Your task to perform on an android device: turn on improve location accuracy Image 0: 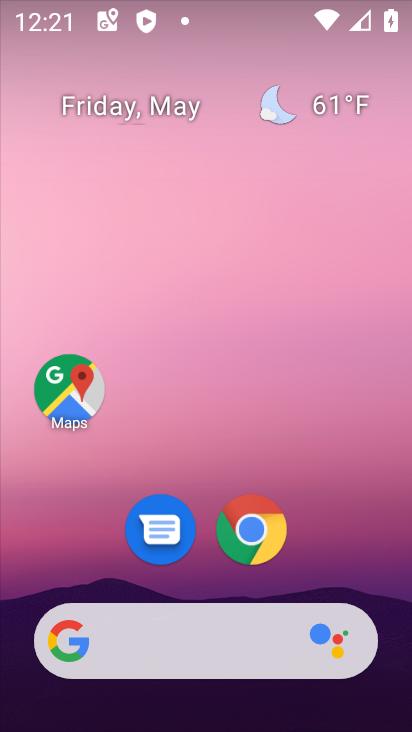
Step 0: drag from (342, 586) to (317, 64)
Your task to perform on an android device: turn on improve location accuracy Image 1: 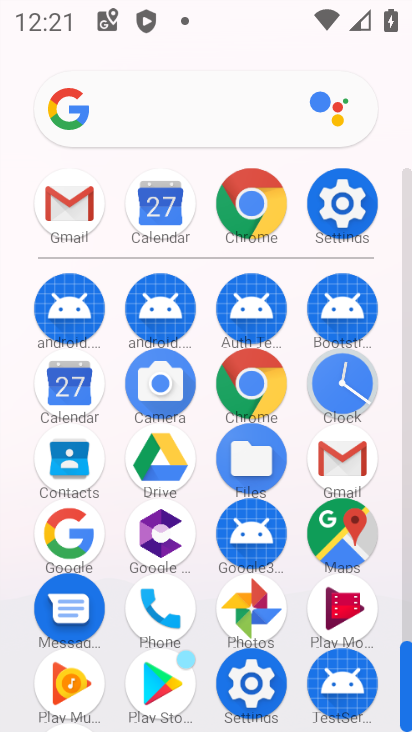
Step 1: click (343, 188)
Your task to perform on an android device: turn on improve location accuracy Image 2: 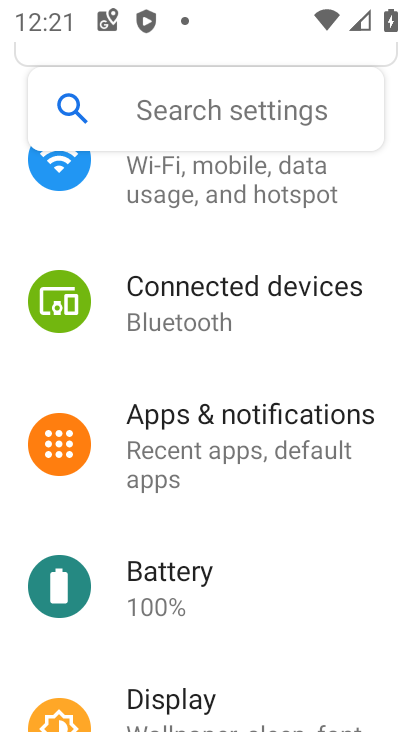
Step 2: drag from (245, 559) to (256, 235)
Your task to perform on an android device: turn on improve location accuracy Image 3: 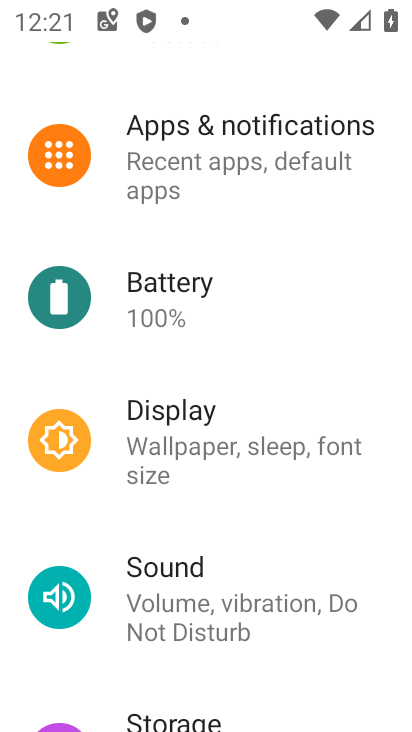
Step 3: drag from (251, 615) to (277, 207)
Your task to perform on an android device: turn on improve location accuracy Image 4: 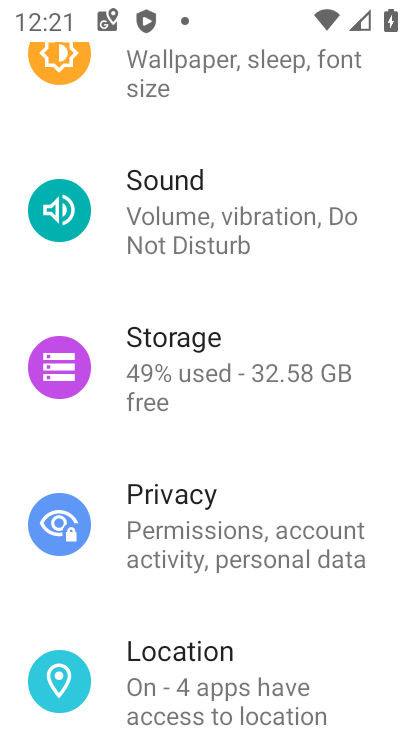
Step 4: click (261, 652)
Your task to perform on an android device: turn on improve location accuracy Image 5: 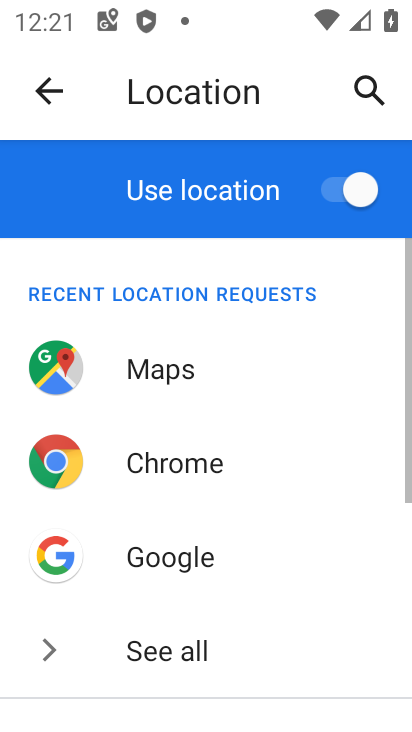
Step 5: drag from (301, 645) to (286, 222)
Your task to perform on an android device: turn on improve location accuracy Image 6: 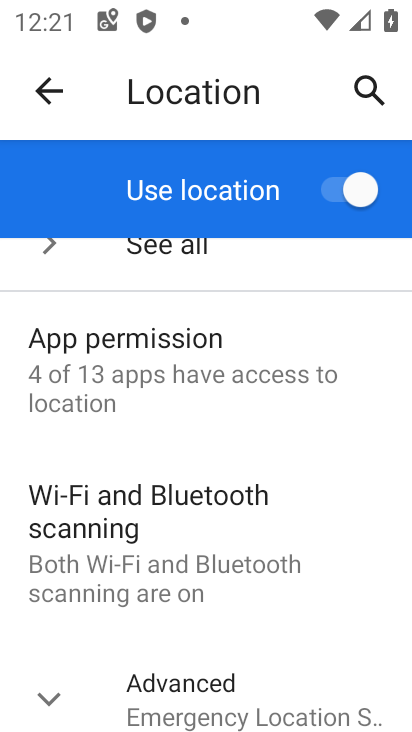
Step 6: drag from (306, 644) to (294, 421)
Your task to perform on an android device: turn on improve location accuracy Image 7: 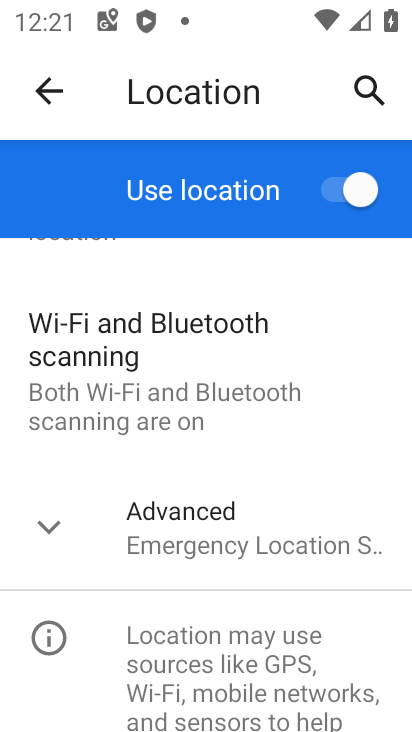
Step 7: click (246, 515)
Your task to perform on an android device: turn on improve location accuracy Image 8: 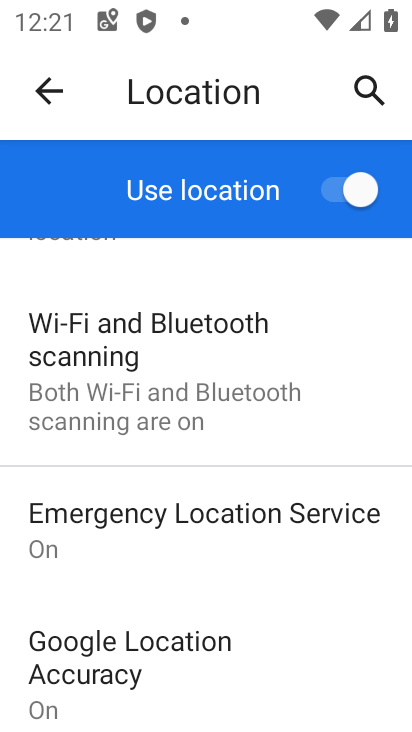
Step 8: task complete